Your task to perform on an android device: Open wifi settings Image 0: 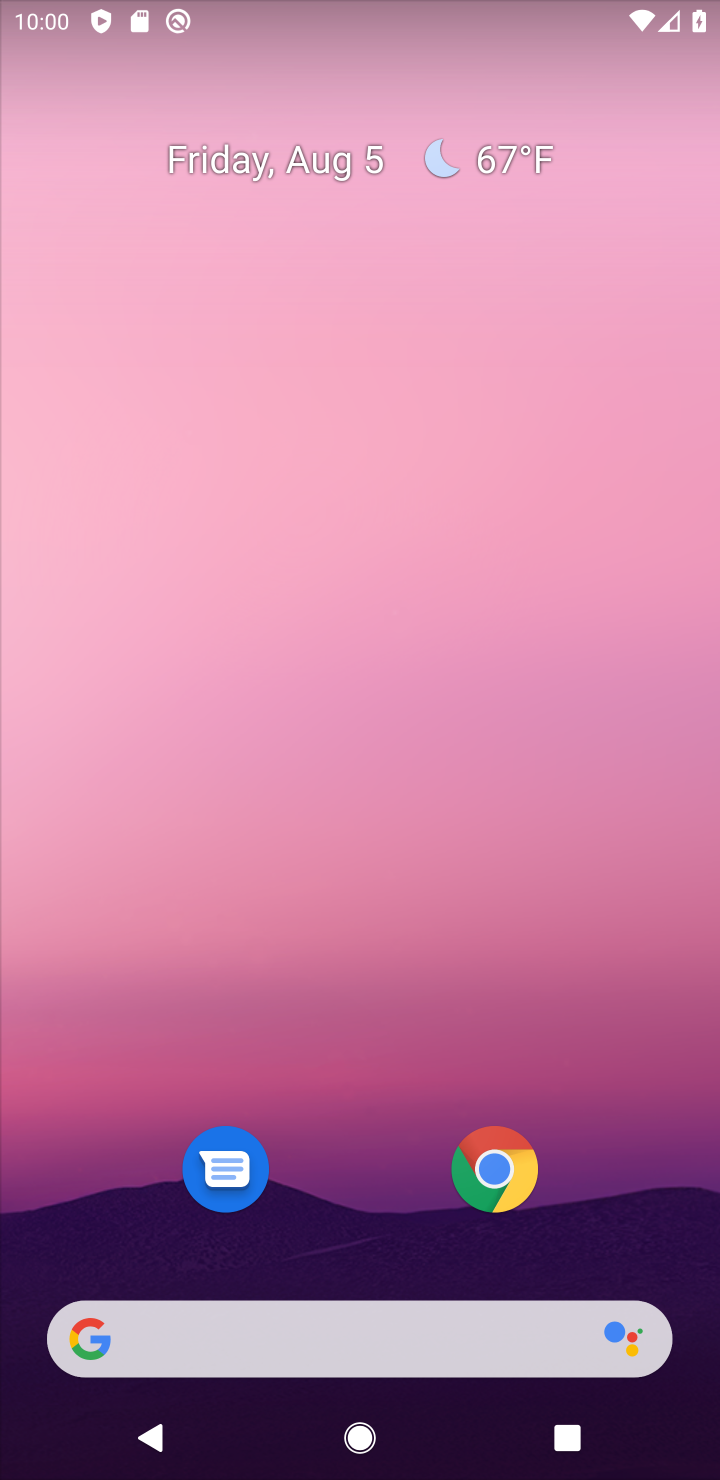
Step 0: drag from (652, 998) to (613, 83)
Your task to perform on an android device: Open wifi settings Image 1: 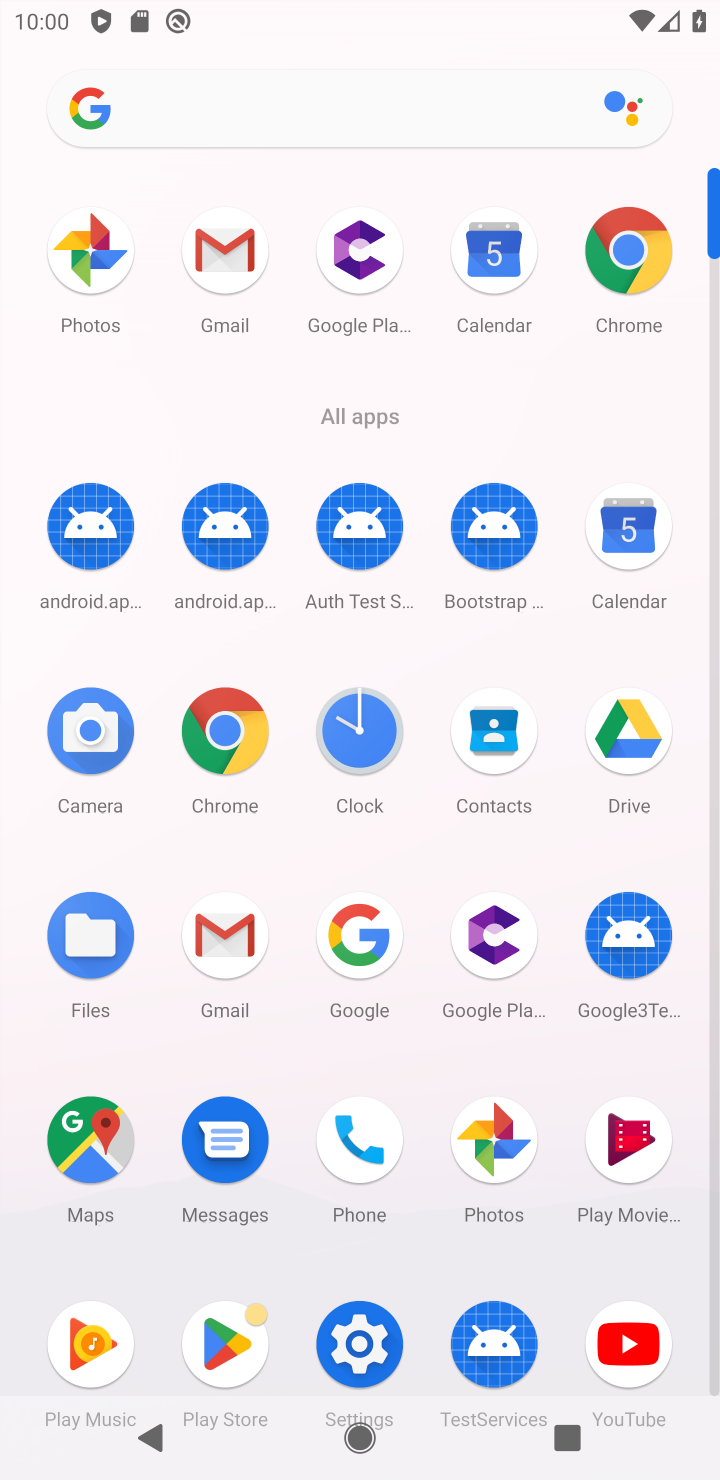
Step 1: click (358, 1348)
Your task to perform on an android device: Open wifi settings Image 2: 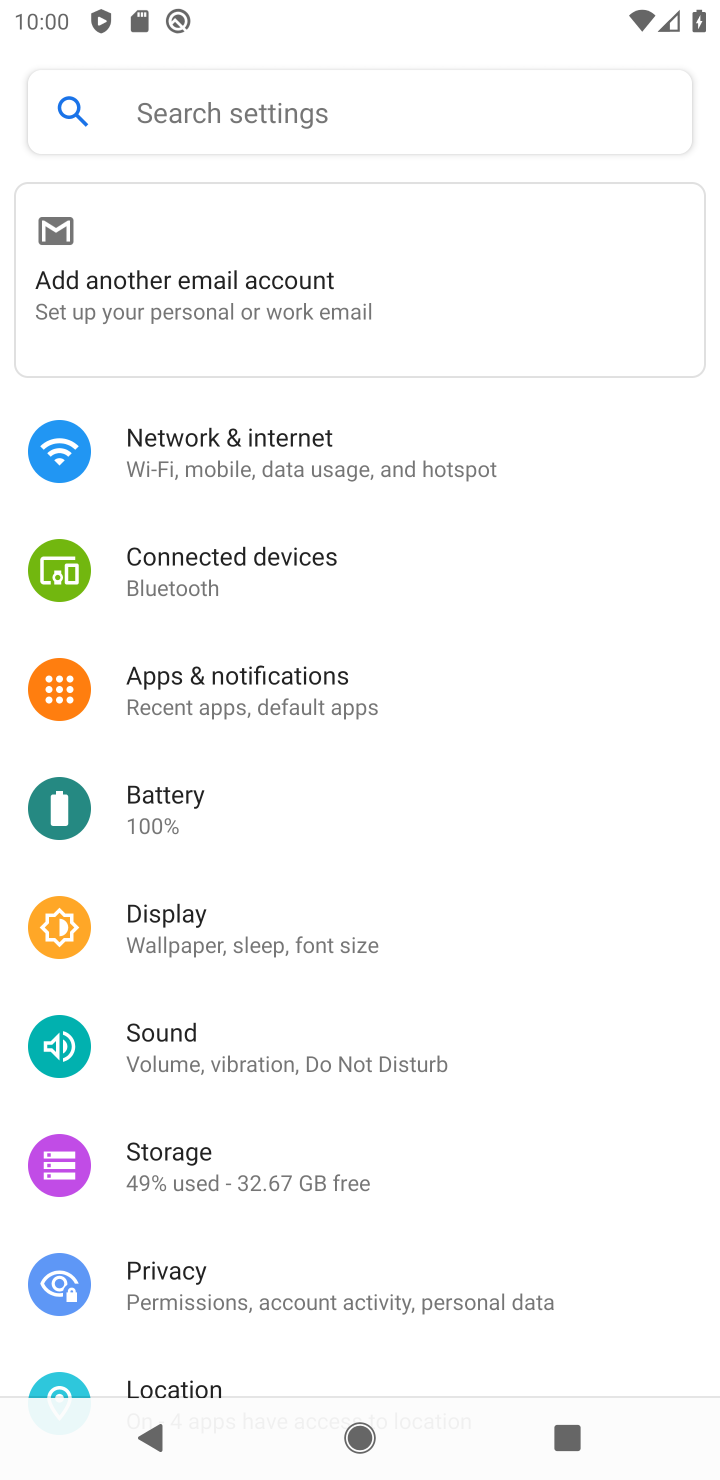
Step 2: click (194, 435)
Your task to perform on an android device: Open wifi settings Image 3: 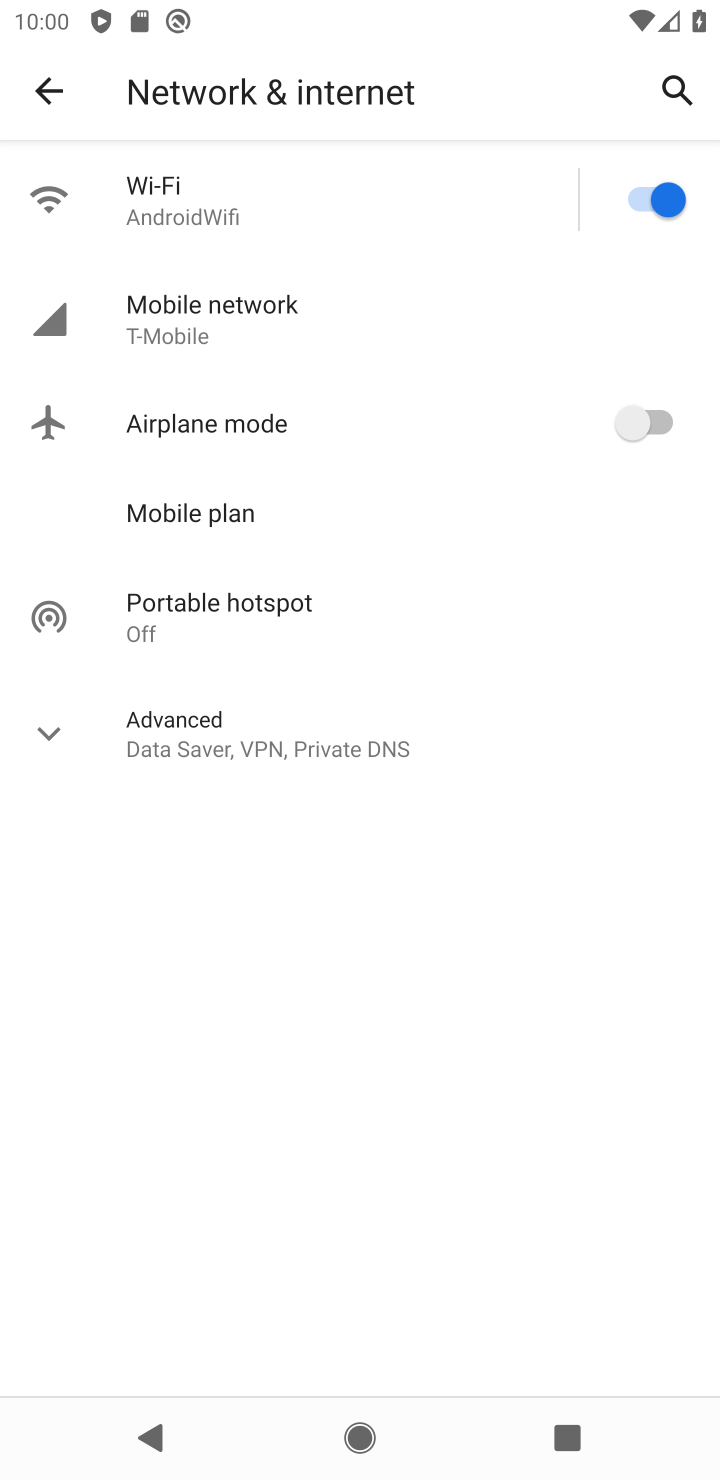
Step 3: click (156, 209)
Your task to perform on an android device: Open wifi settings Image 4: 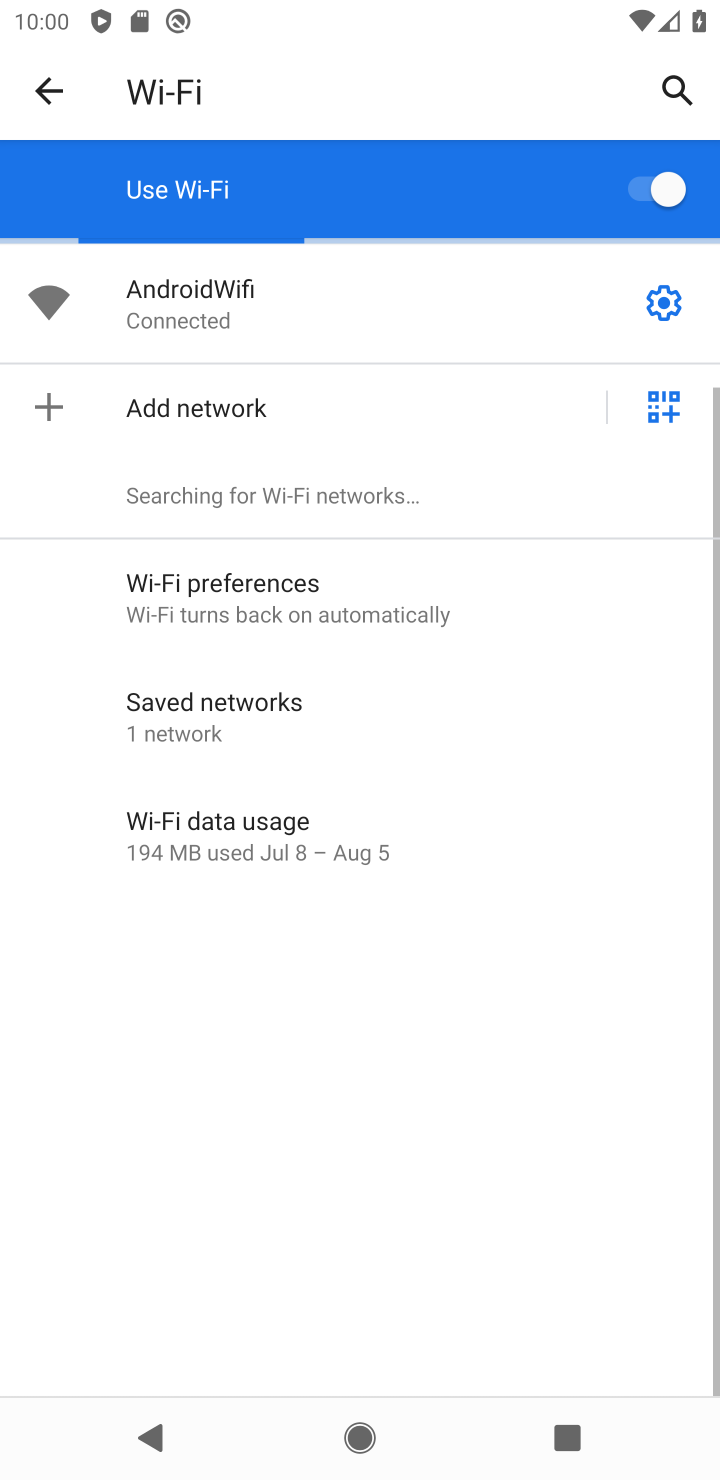
Step 4: click (662, 304)
Your task to perform on an android device: Open wifi settings Image 5: 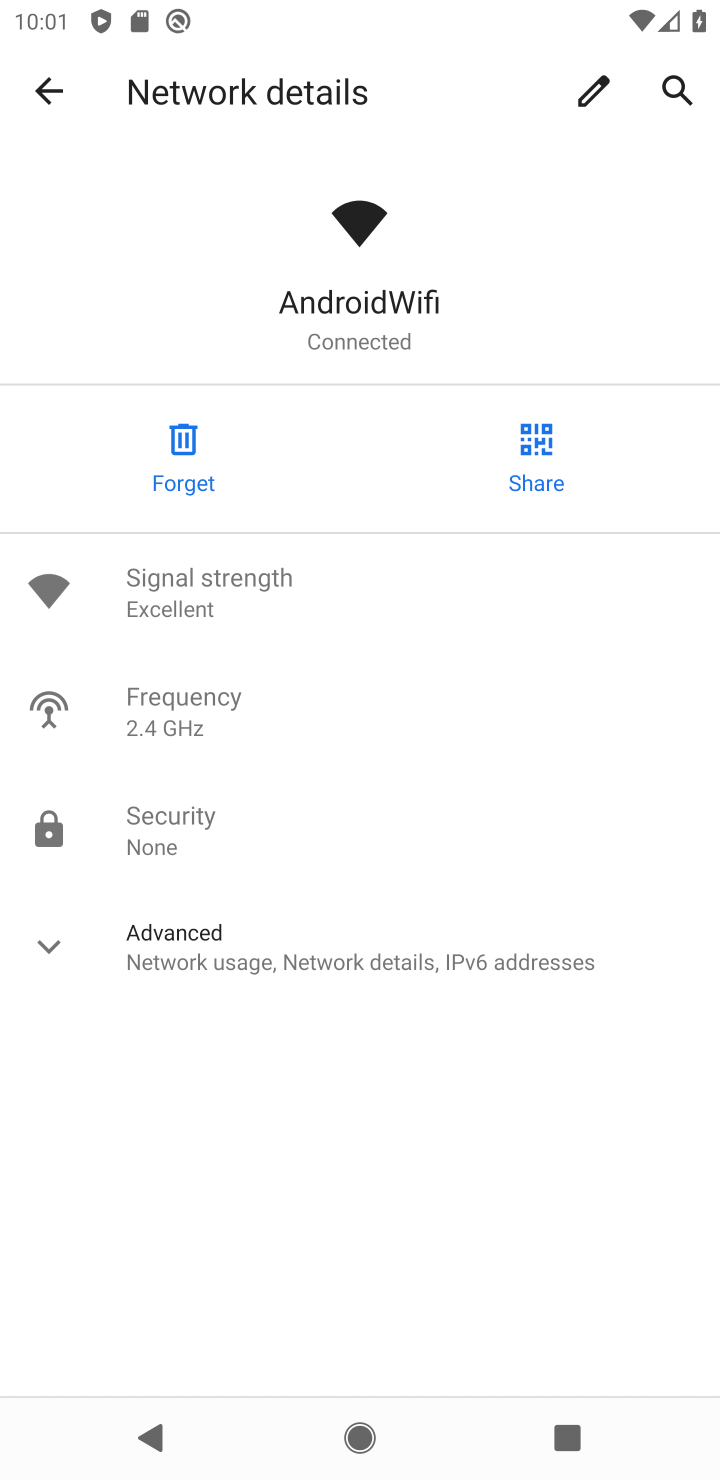
Step 5: task complete